Your task to perform on an android device: Go to Wikipedia Image 0: 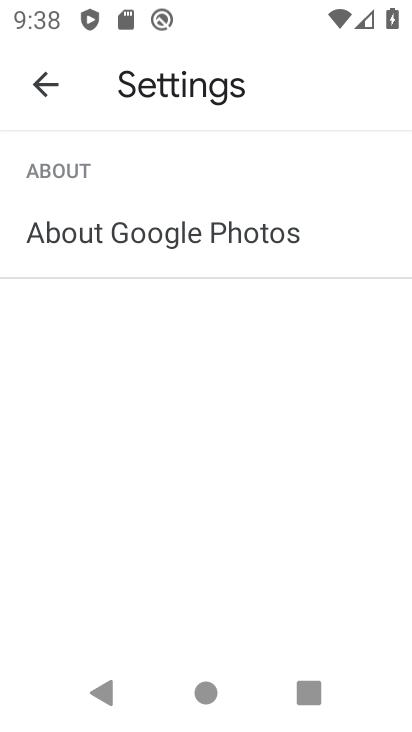
Step 0: press back button
Your task to perform on an android device: Go to Wikipedia Image 1: 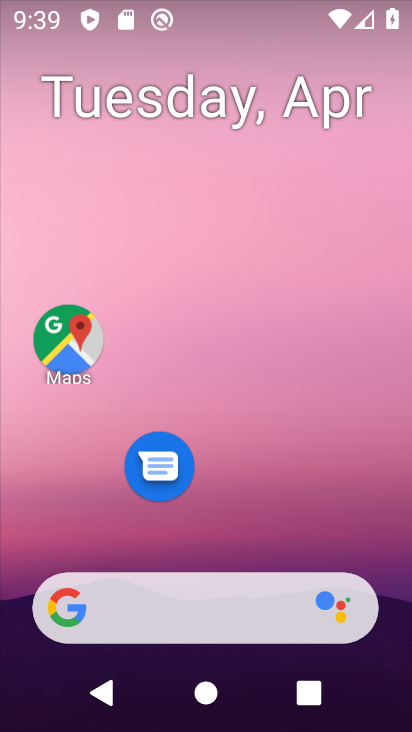
Step 1: drag from (258, 546) to (228, 93)
Your task to perform on an android device: Go to Wikipedia Image 2: 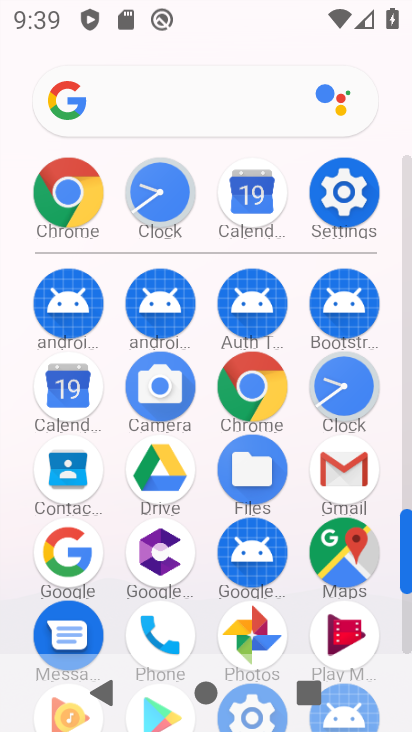
Step 2: click (357, 185)
Your task to perform on an android device: Go to Wikipedia Image 3: 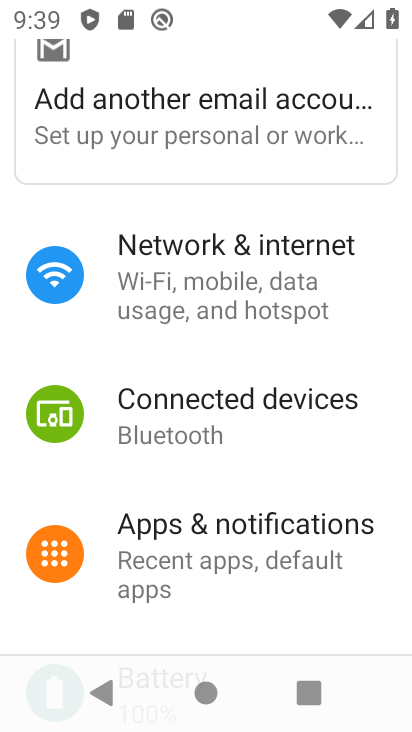
Step 3: click (209, 681)
Your task to perform on an android device: Go to Wikipedia Image 4: 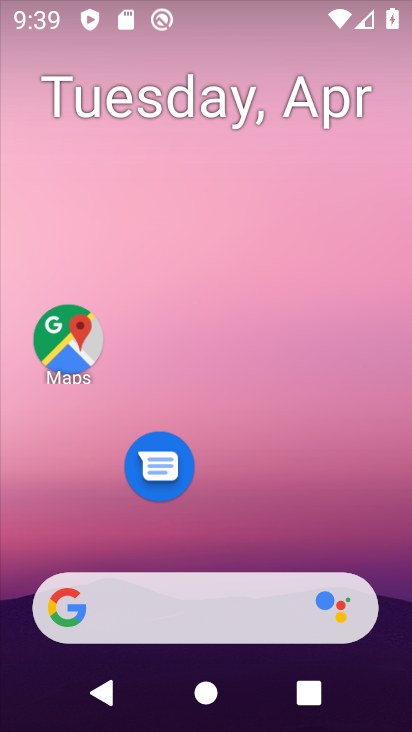
Step 4: drag from (286, 505) to (277, 155)
Your task to perform on an android device: Go to Wikipedia Image 5: 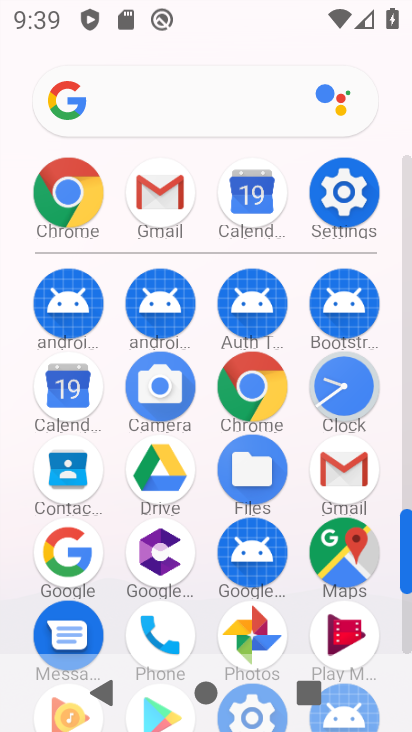
Step 5: click (264, 408)
Your task to perform on an android device: Go to Wikipedia Image 6: 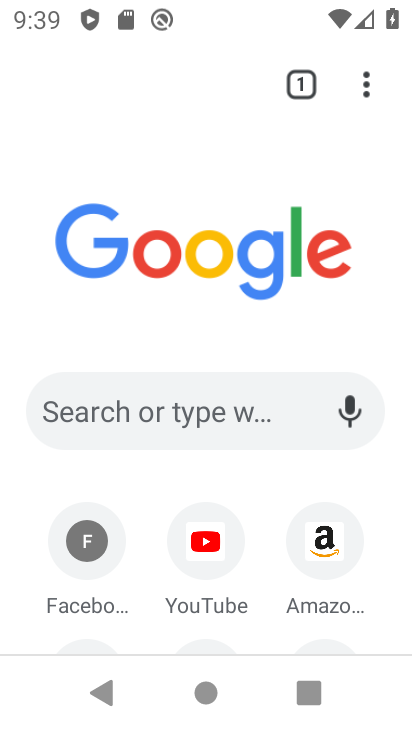
Step 6: click (190, 410)
Your task to perform on an android device: Go to Wikipedia Image 7: 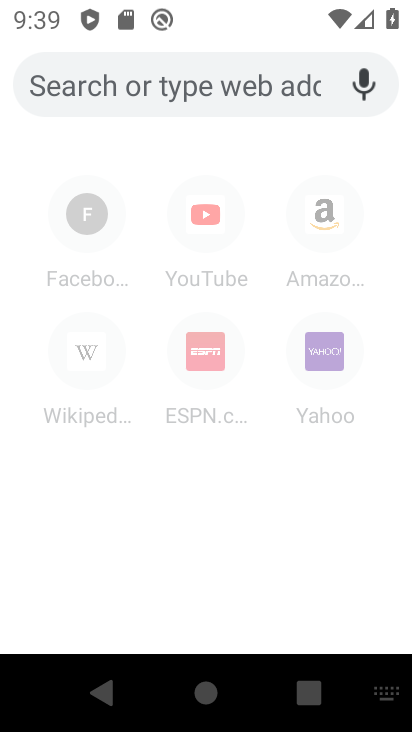
Step 7: type "wikipedia"
Your task to perform on an android device: Go to Wikipedia Image 8: 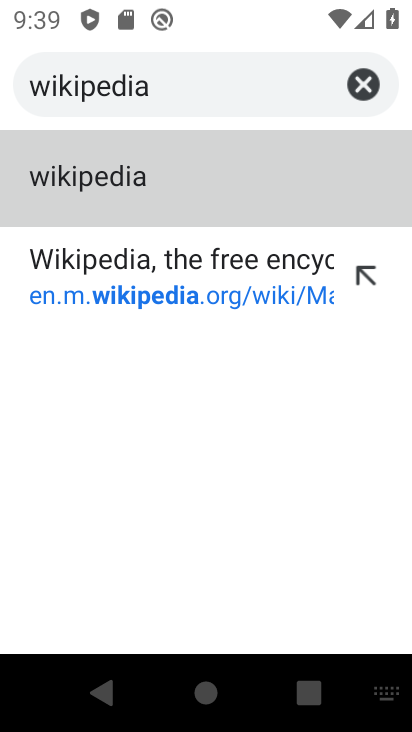
Step 8: click (275, 257)
Your task to perform on an android device: Go to Wikipedia Image 9: 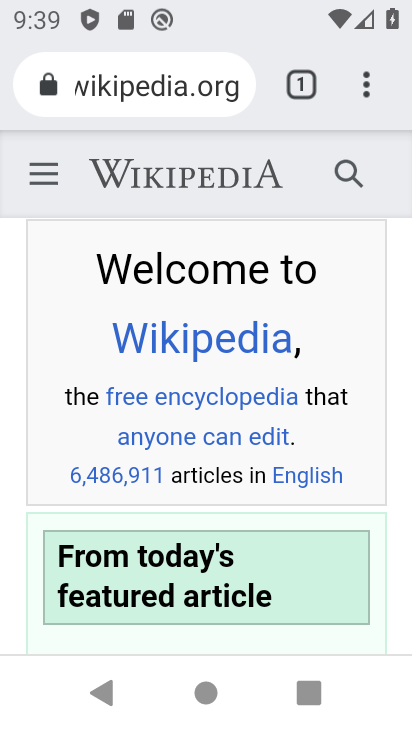
Step 9: task complete